Your task to perform on an android device: Go to network settings Image 0: 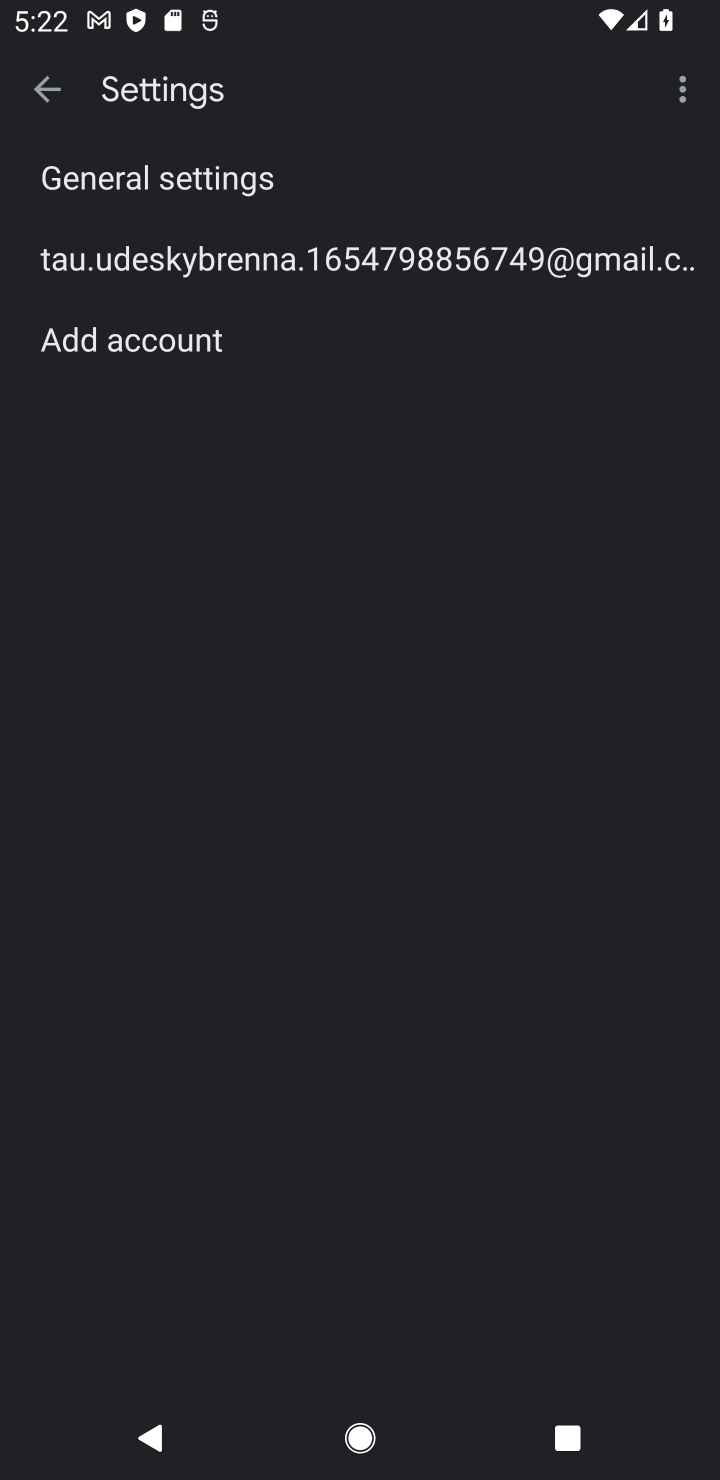
Step 0: press home button
Your task to perform on an android device: Go to network settings Image 1: 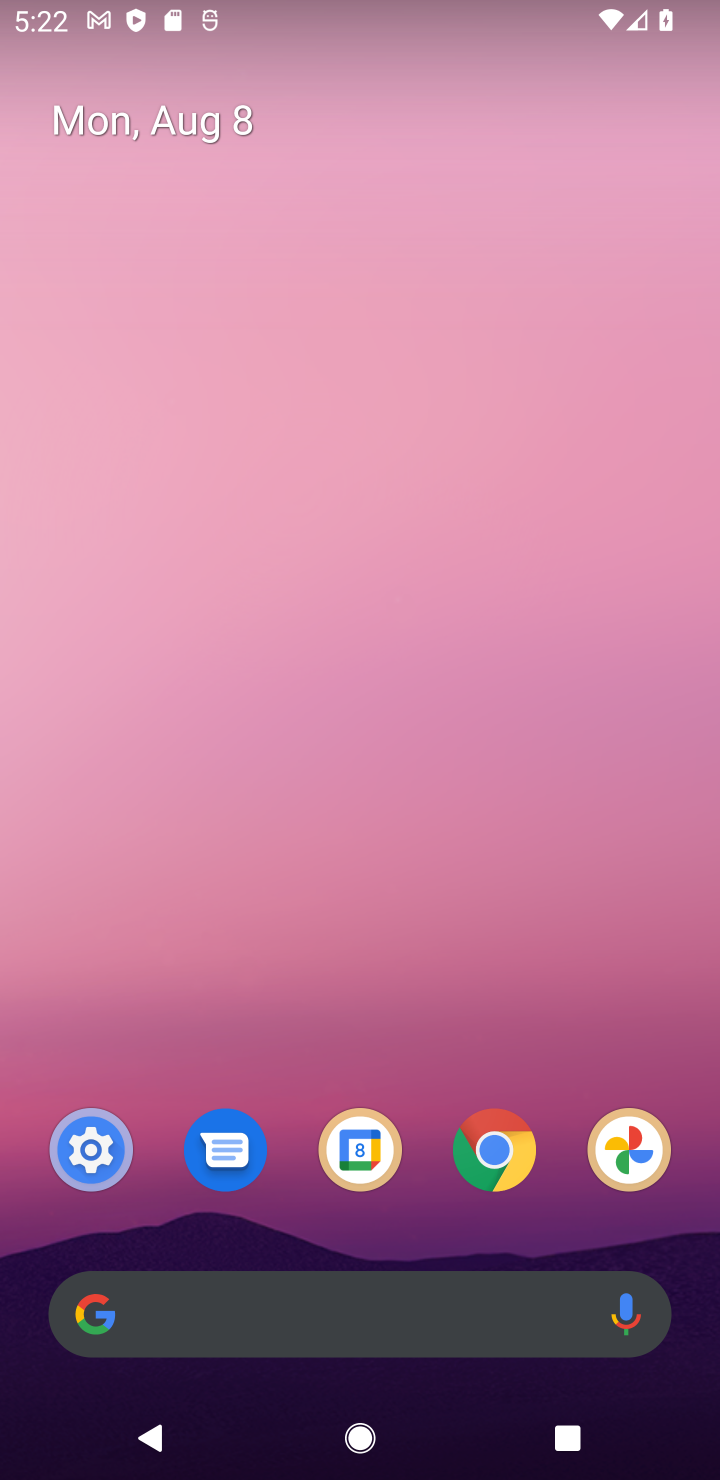
Step 1: click (110, 1175)
Your task to perform on an android device: Go to network settings Image 2: 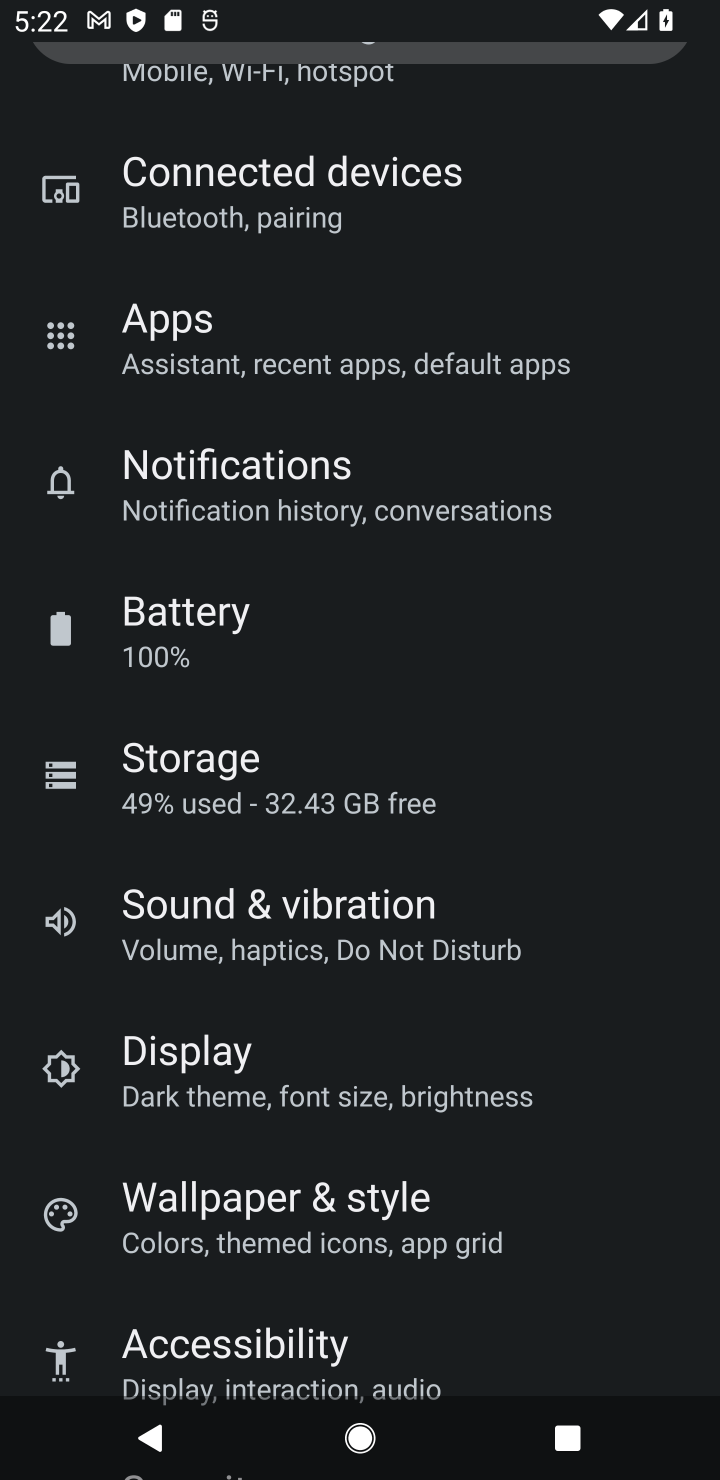
Step 2: click (301, 97)
Your task to perform on an android device: Go to network settings Image 3: 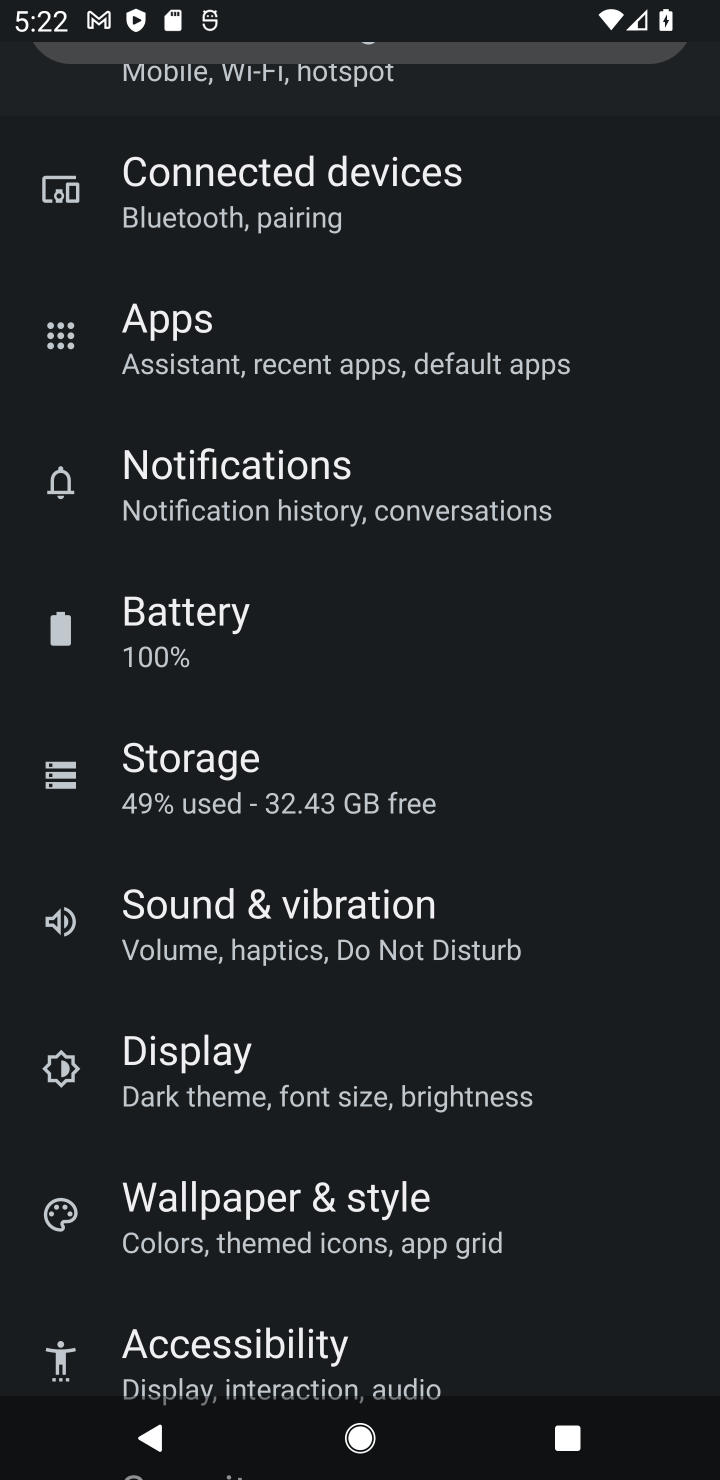
Step 3: task complete